Your task to perform on an android device: stop showing notifications on the lock screen Image 0: 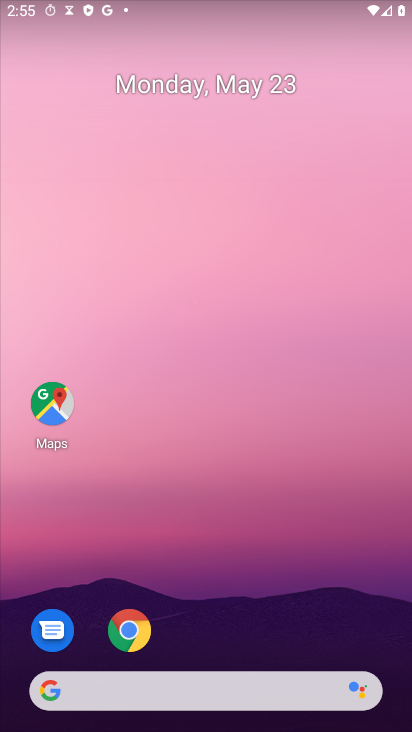
Step 0: drag from (302, 565) to (339, 91)
Your task to perform on an android device: stop showing notifications on the lock screen Image 1: 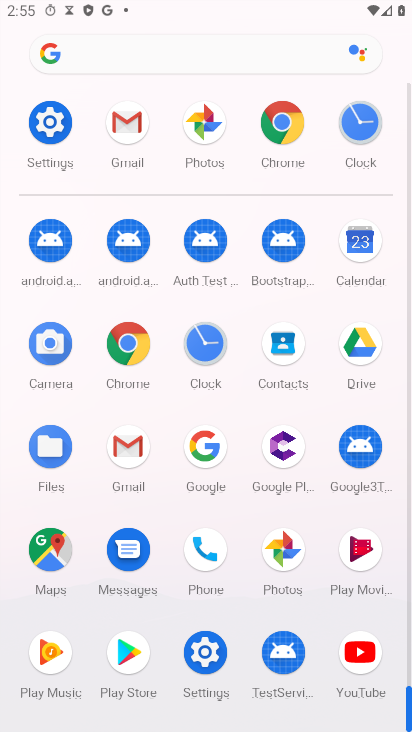
Step 1: click (49, 132)
Your task to perform on an android device: stop showing notifications on the lock screen Image 2: 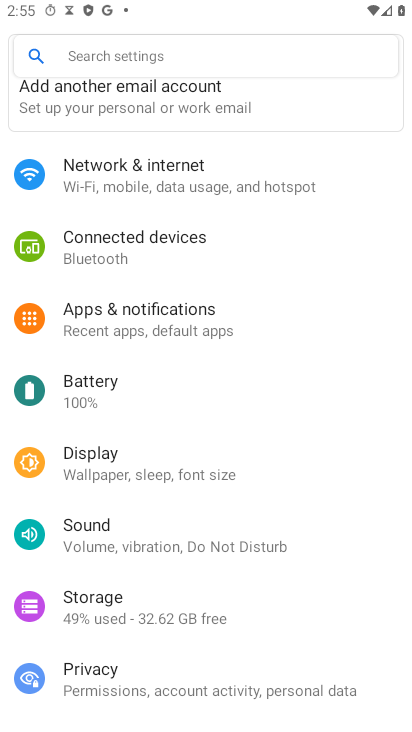
Step 2: drag from (299, 303) to (238, 621)
Your task to perform on an android device: stop showing notifications on the lock screen Image 3: 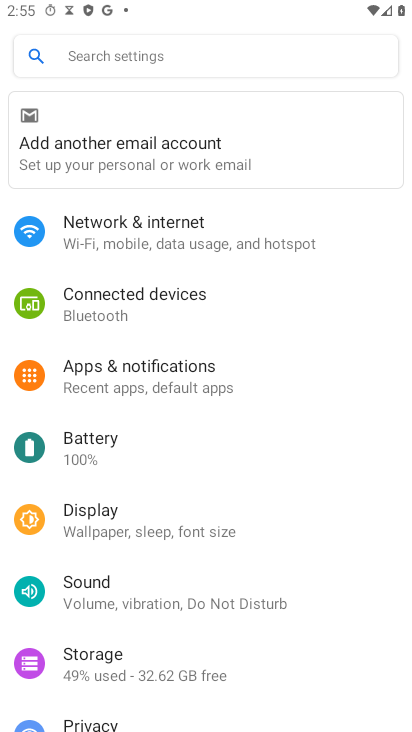
Step 3: click (147, 373)
Your task to perform on an android device: stop showing notifications on the lock screen Image 4: 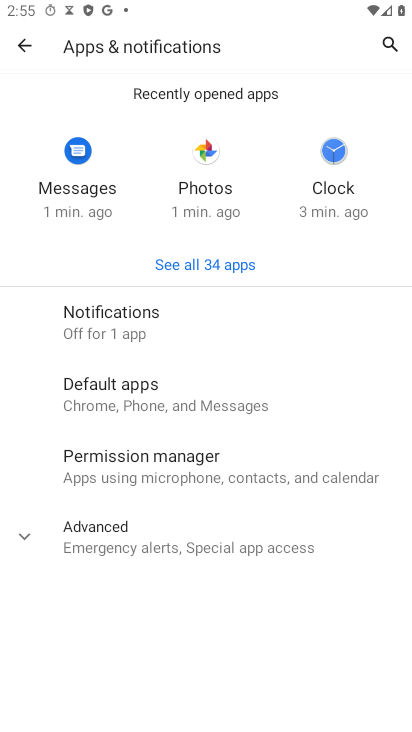
Step 4: click (99, 328)
Your task to perform on an android device: stop showing notifications on the lock screen Image 5: 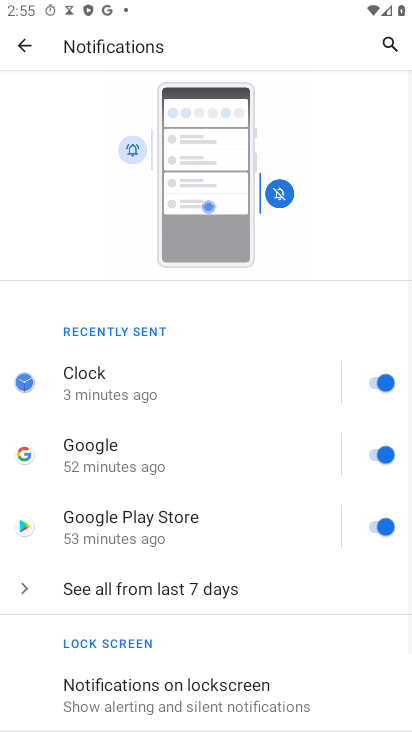
Step 5: drag from (238, 647) to (213, 287)
Your task to perform on an android device: stop showing notifications on the lock screen Image 6: 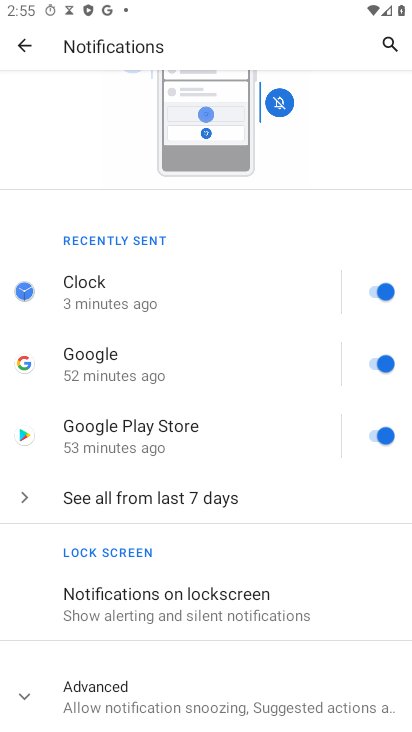
Step 6: click (203, 612)
Your task to perform on an android device: stop showing notifications on the lock screen Image 7: 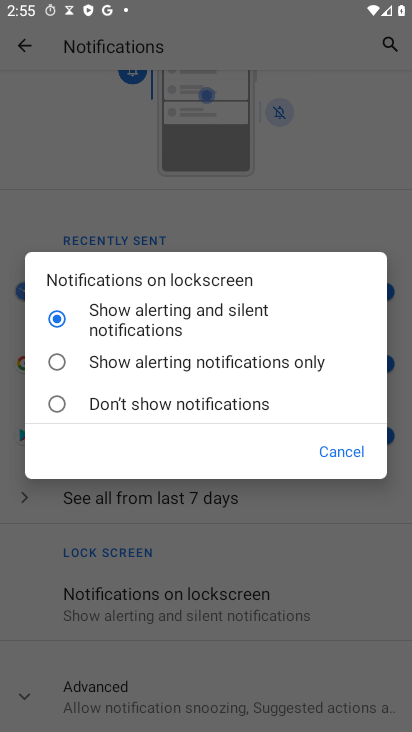
Step 7: click (132, 416)
Your task to perform on an android device: stop showing notifications on the lock screen Image 8: 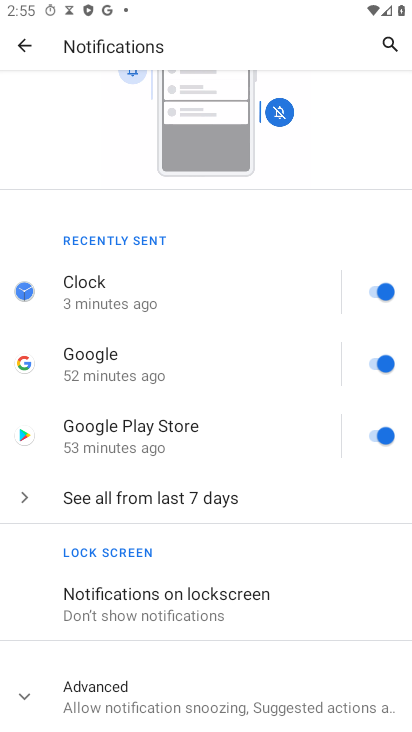
Step 8: task complete